Your task to perform on an android device: Open notification settings Image 0: 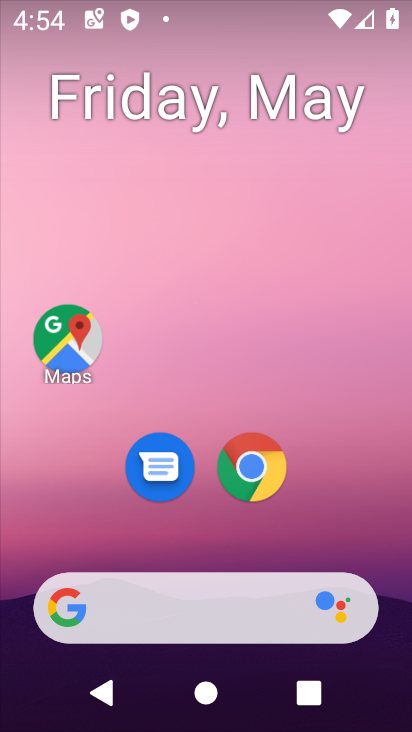
Step 0: drag from (290, 534) to (367, 17)
Your task to perform on an android device: Open notification settings Image 1: 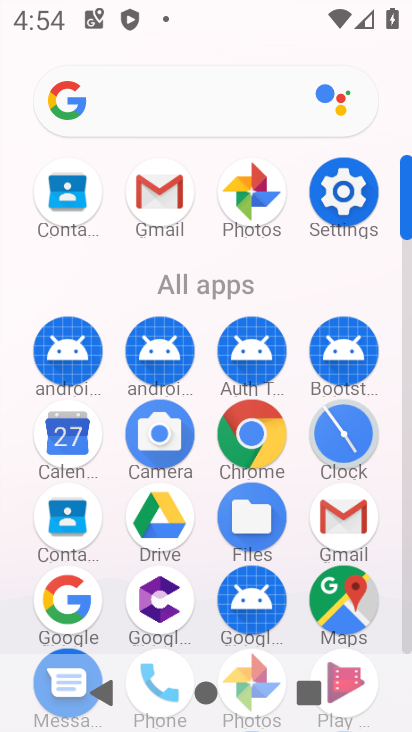
Step 1: click (346, 179)
Your task to perform on an android device: Open notification settings Image 2: 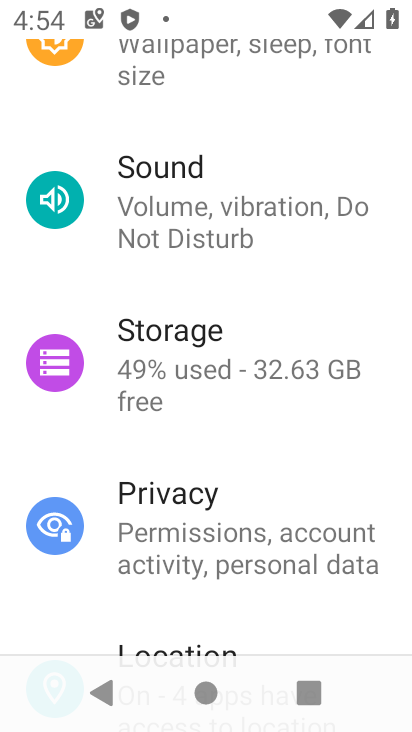
Step 2: drag from (277, 268) to (214, 556)
Your task to perform on an android device: Open notification settings Image 3: 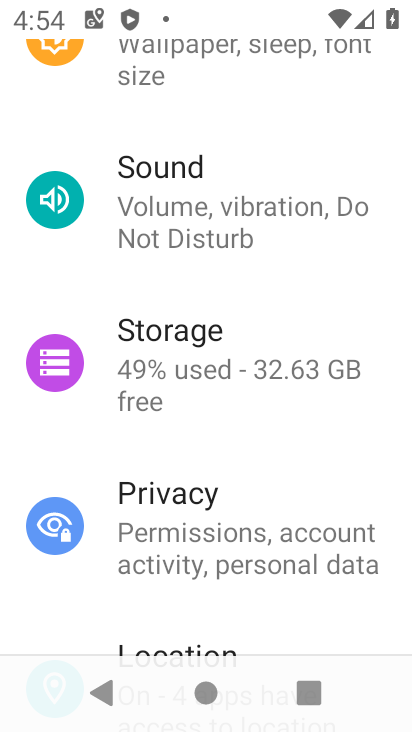
Step 3: drag from (289, 163) to (326, 623)
Your task to perform on an android device: Open notification settings Image 4: 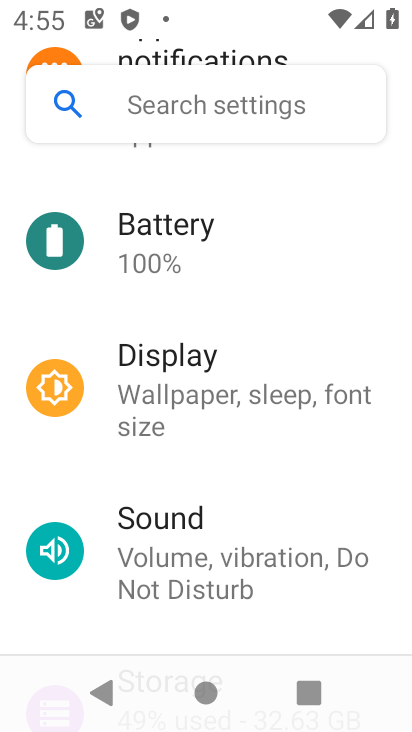
Step 4: drag from (268, 262) to (270, 584)
Your task to perform on an android device: Open notification settings Image 5: 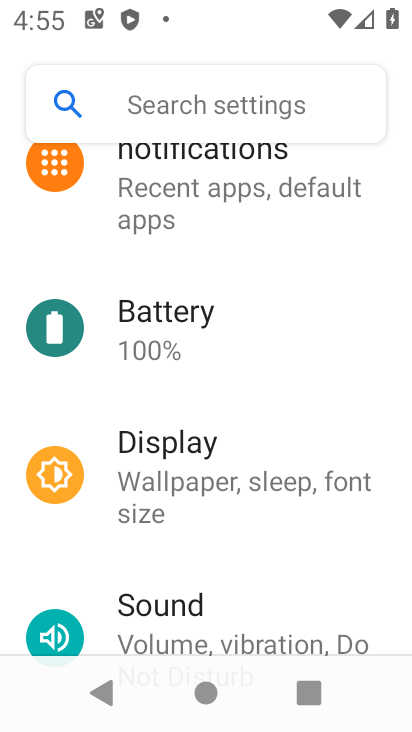
Step 5: drag from (289, 193) to (290, 491)
Your task to perform on an android device: Open notification settings Image 6: 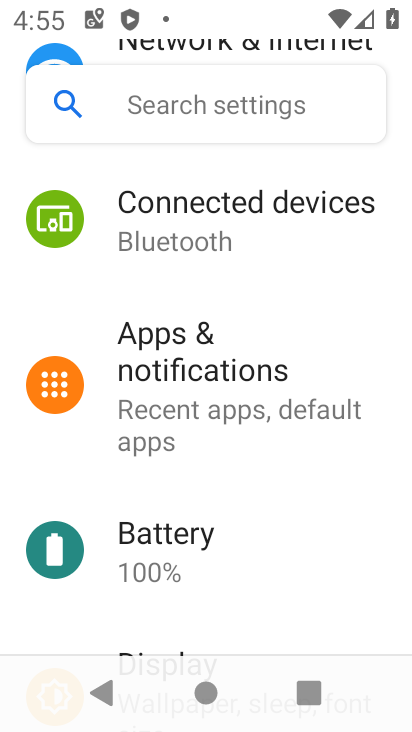
Step 6: click (242, 400)
Your task to perform on an android device: Open notification settings Image 7: 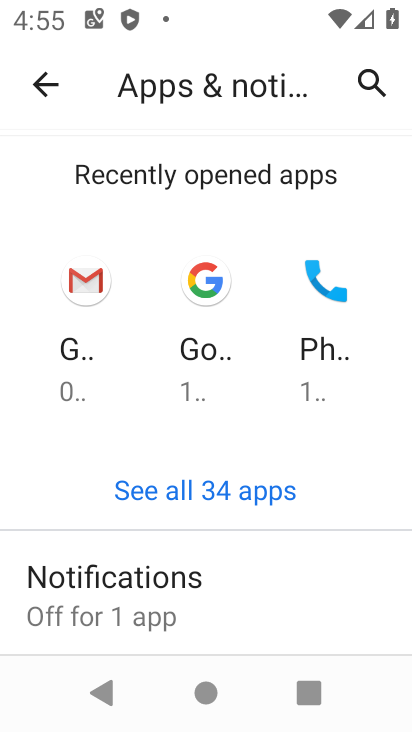
Step 7: task complete